Your task to perform on an android device: toggle data saver in the chrome app Image 0: 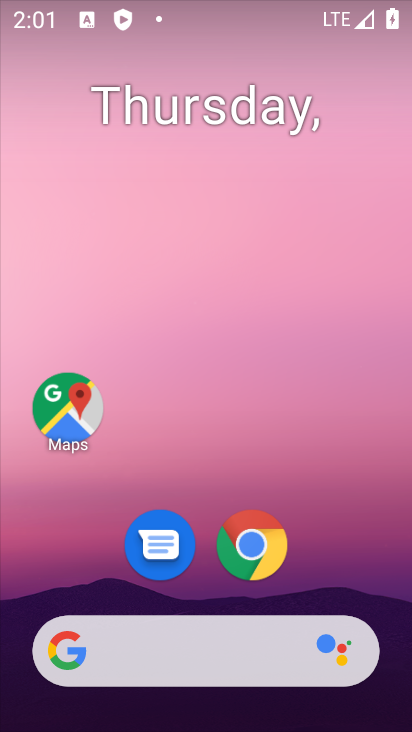
Step 0: drag from (212, 530) to (246, 49)
Your task to perform on an android device: toggle data saver in the chrome app Image 1: 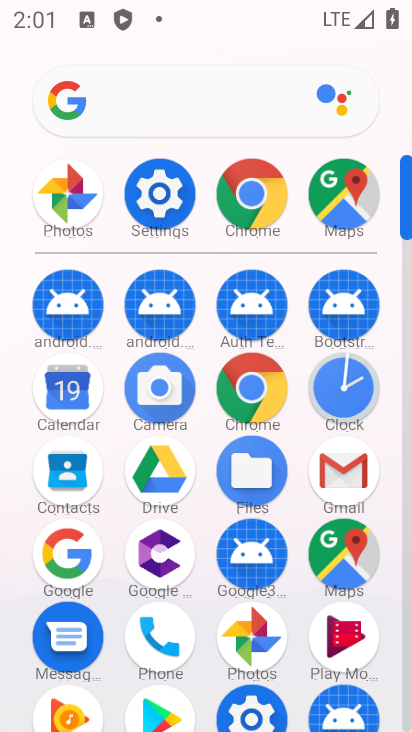
Step 1: click (262, 396)
Your task to perform on an android device: toggle data saver in the chrome app Image 2: 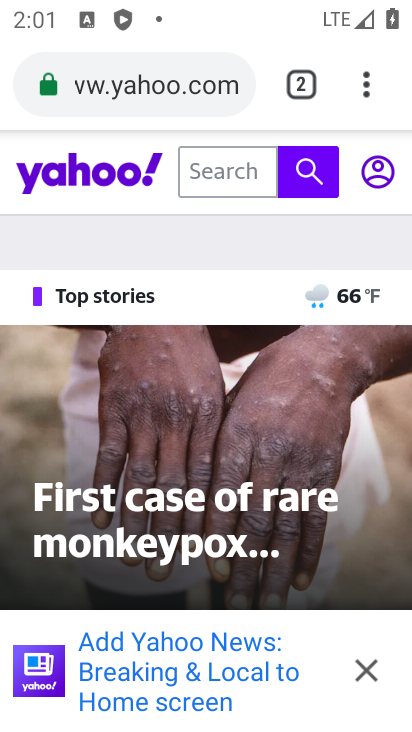
Step 2: click (370, 88)
Your task to perform on an android device: toggle data saver in the chrome app Image 3: 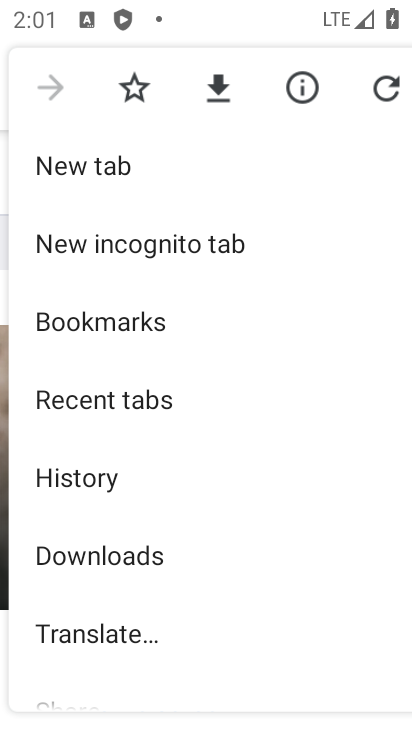
Step 3: drag from (214, 644) to (194, 124)
Your task to perform on an android device: toggle data saver in the chrome app Image 4: 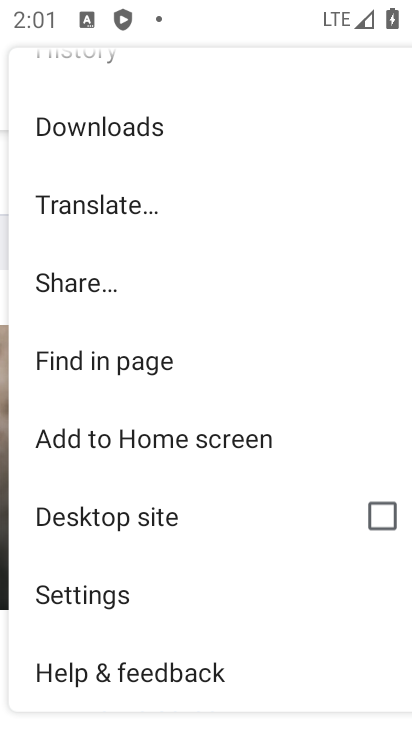
Step 4: click (116, 603)
Your task to perform on an android device: toggle data saver in the chrome app Image 5: 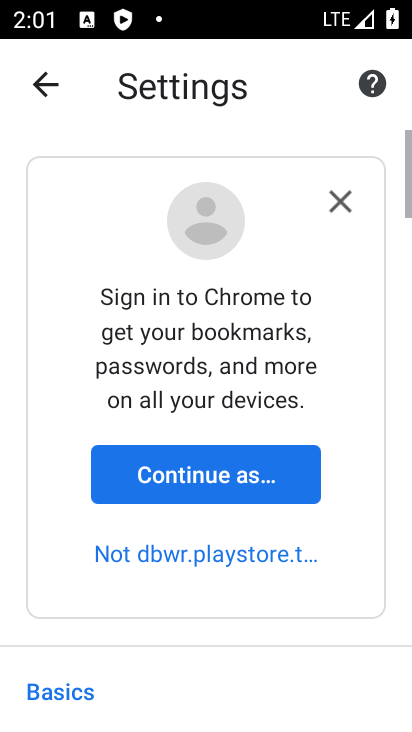
Step 5: drag from (257, 675) to (266, 86)
Your task to perform on an android device: toggle data saver in the chrome app Image 6: 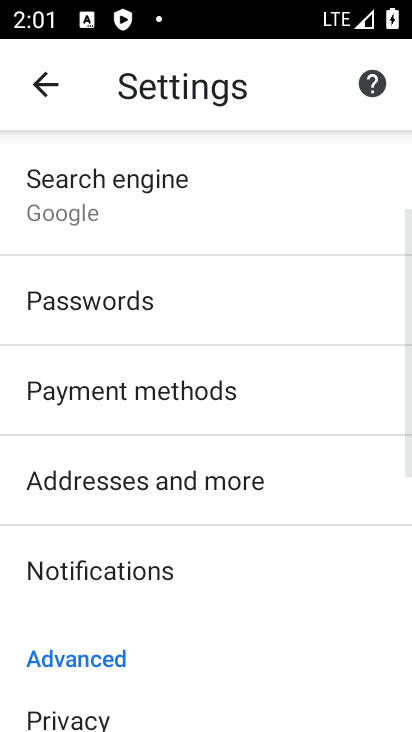
Step 6: drag from (266, 642) to (283, 180)
Your task to perform on an android device: toggle data saver in the chrome app Image 7: 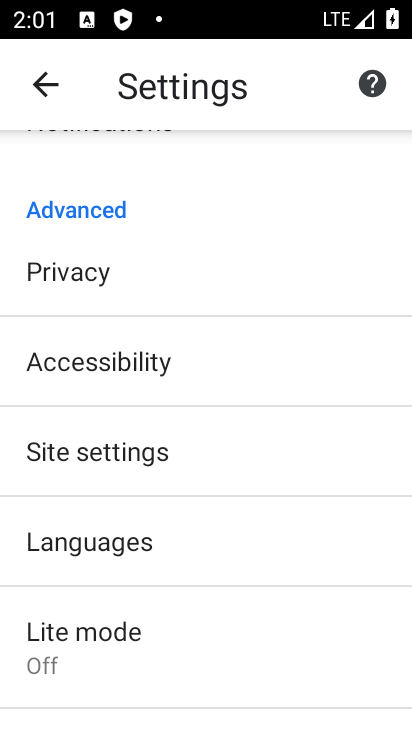
Step 7: click (118, 656)
Your task to perform on an android device: toggle data saver in the chrome app Image 8: 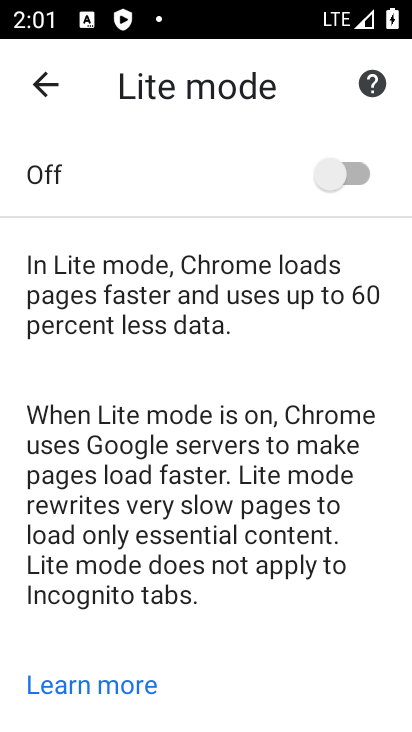
Step 8: click (361, 173)
Your task to perform on an android device: toggle data saver in the chrome app Image 9: 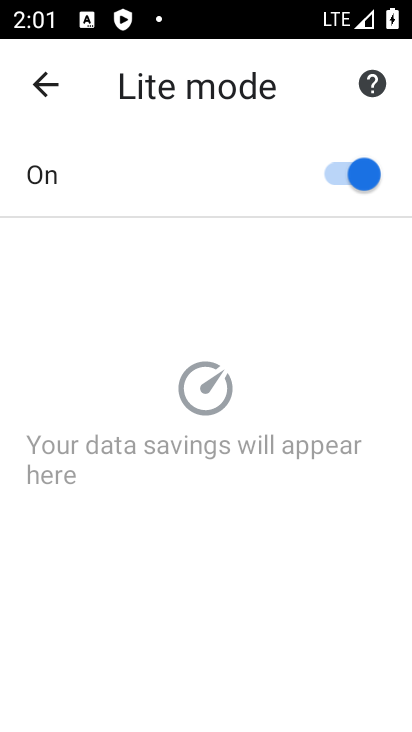
Step 9: task complete